Your task to perform on an android device: turn notification dots off Image 0: 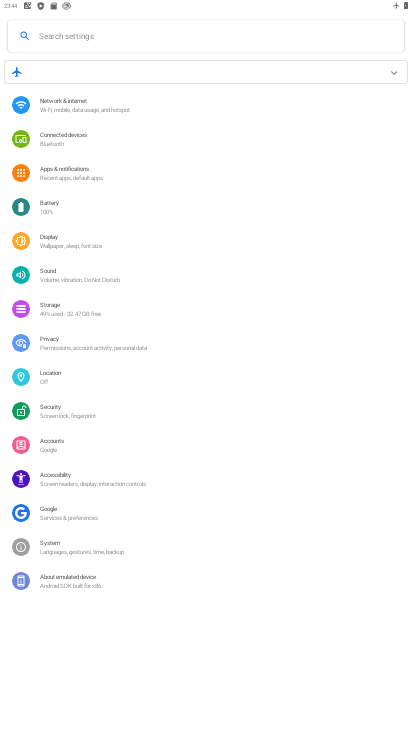
Step 0: press home button
Your task to perform on an android device: turn notification dots off Image 1: 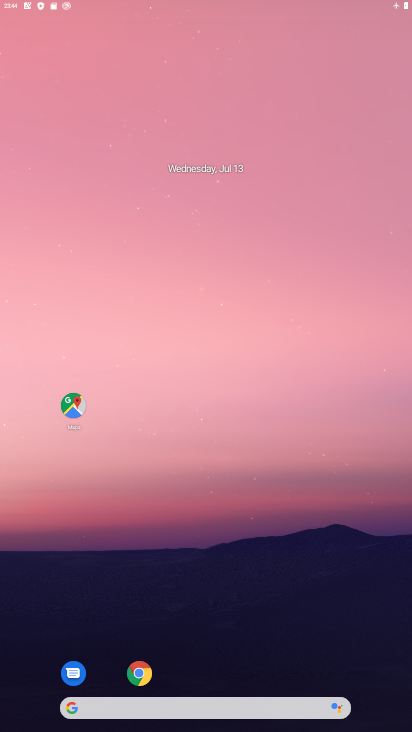
Step 1: drag from (227, 644) to (189, 115)
Your task to perform on an android device: turn notification dots off Image 2: 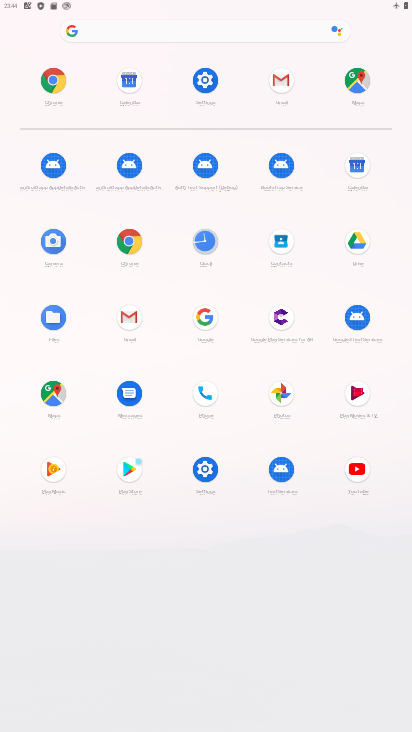
Step 2: click (207, 82)
Your task to perform on an android device: turn notification dots off Image 3: 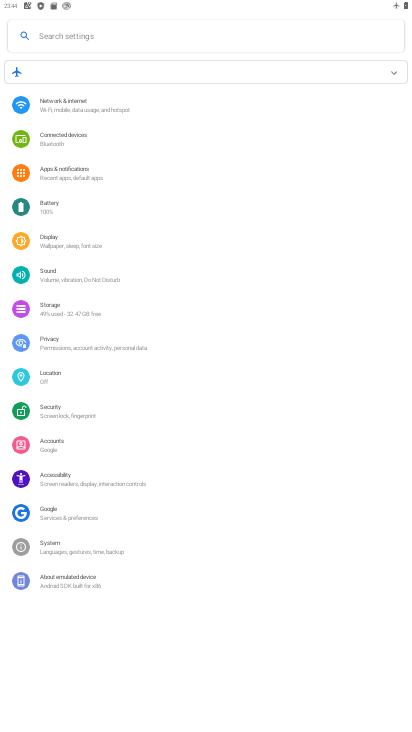
Step 3: click (106, 177)
Your task to perform on an android device: turn notification dots off Image 4: 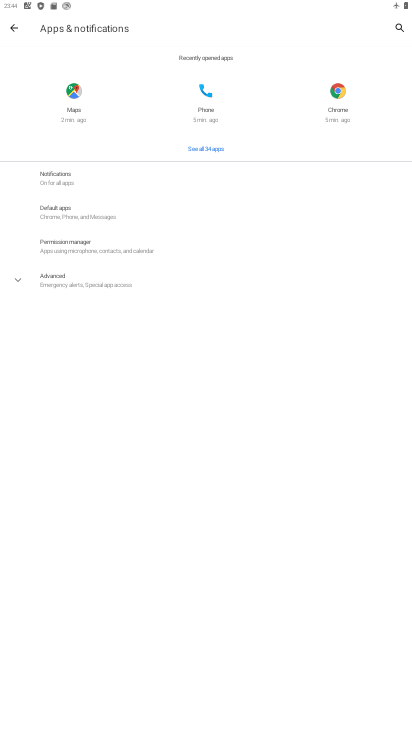
Step 4: click (105, 183)
Your task to perform on an android device: turn notification dots off Image 5: 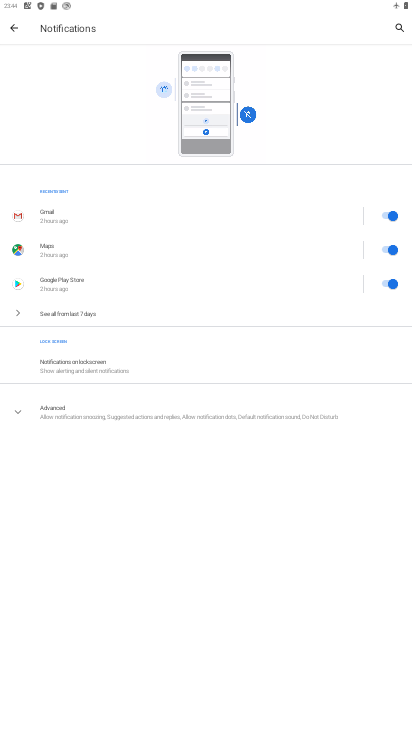
Step 5: click (193, 401)
Your task to perform on an android device: turn notification dots off Image 6: 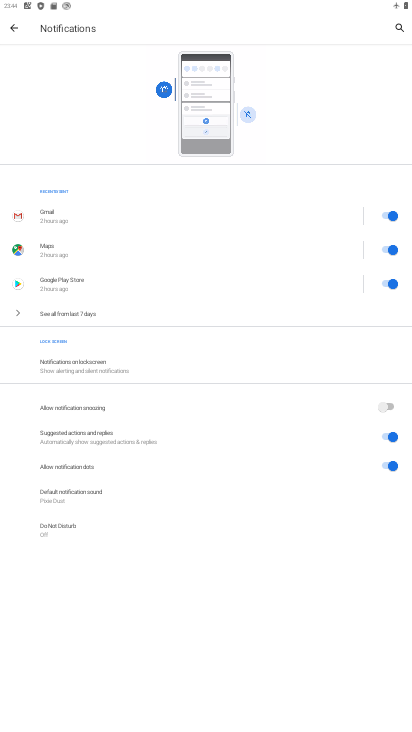
Step 6: click (385, 465)
Your task to perform on an android device: turn notification dots off Image 7: 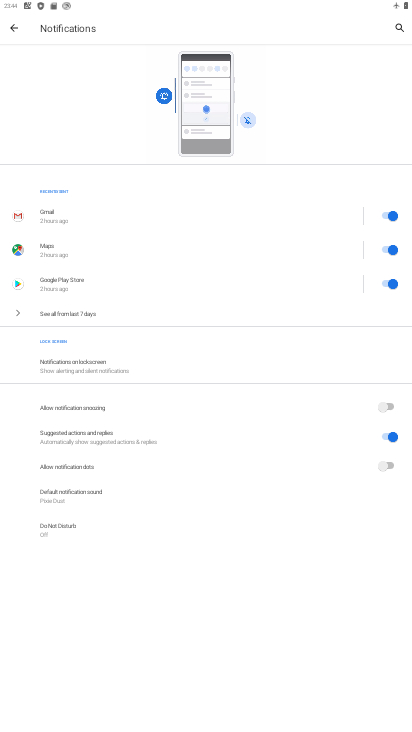
Step 7: task complete